Your task to perform on an android device: Show me the alarms in the clock app Image 0: 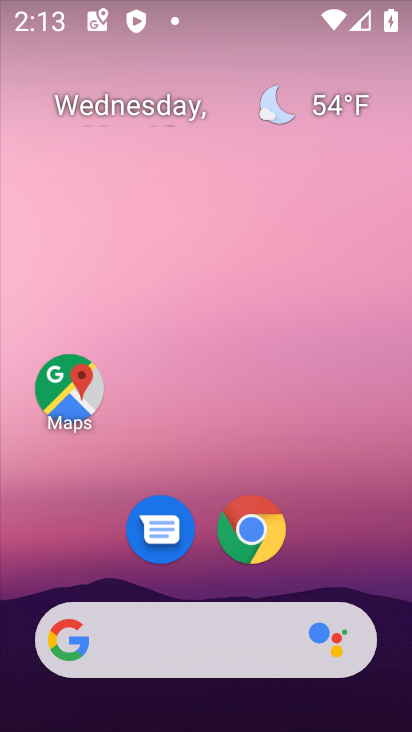
Step 0: drag from (209, 570) to (229, 38)
Your task to perform on an android device: Show me the alarms in the clock app Image 1: 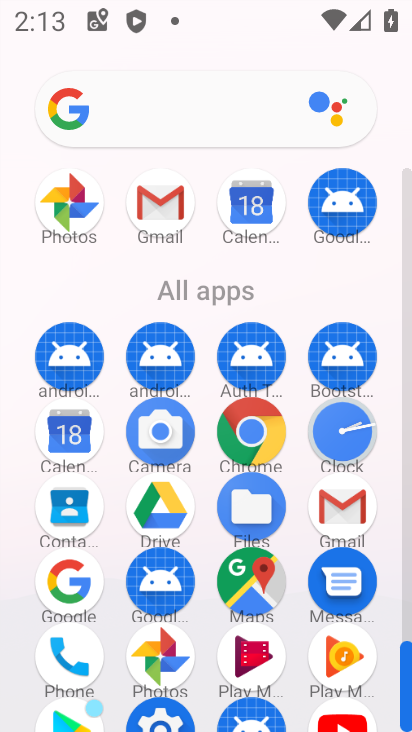
Step 1: click (332, 433)
Your task to perform on an android device: Show me the alarms in the clock app Image 2: 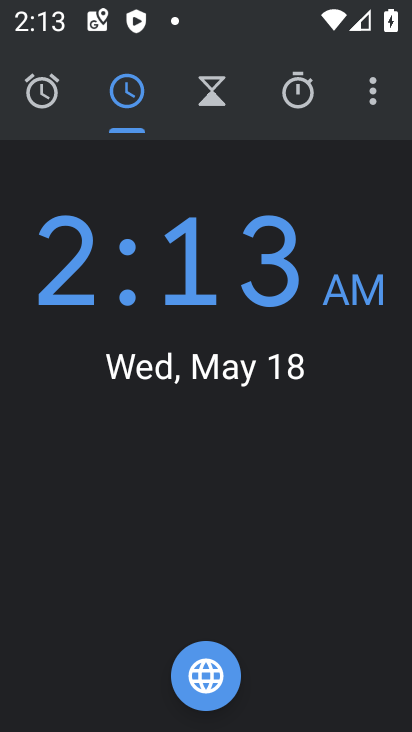
Step 2: click (36, 88)
Your task to perform on an android device: Show me the alarms in the clock app Image 3: 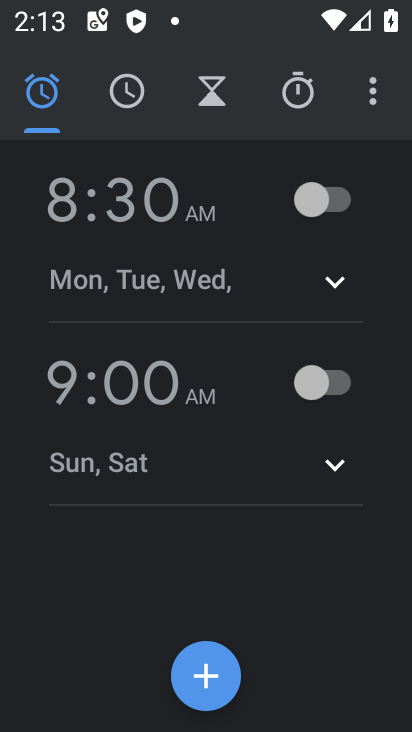
Step 3: task complete